Your task to perform on an android device: turn on showing notifications on the lock screen Image 0: 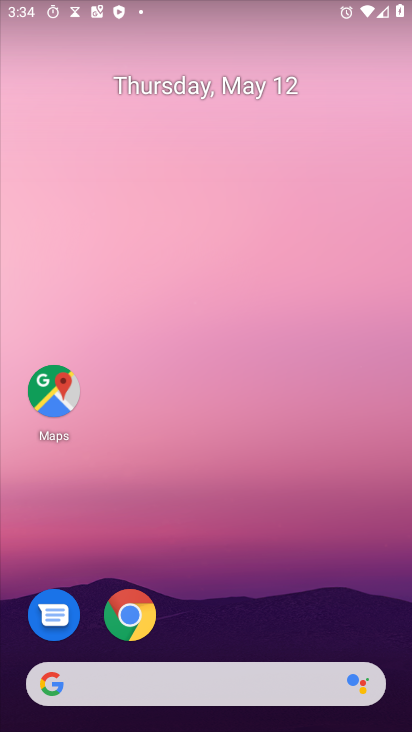
Step 0: press home button
Your task to perform on an android device: turn on showing notifications on the lock screen Image 1: 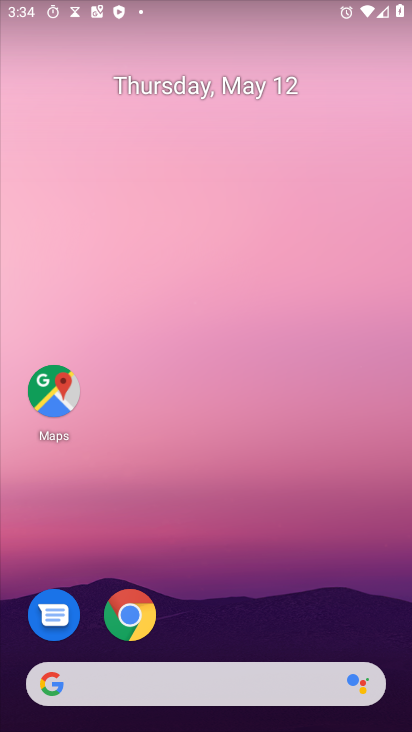
Step 1: drag from (72, 504) to (298, 56)
Your task to perform on an android device: turn on showing notifications on the lock screen Image 2: 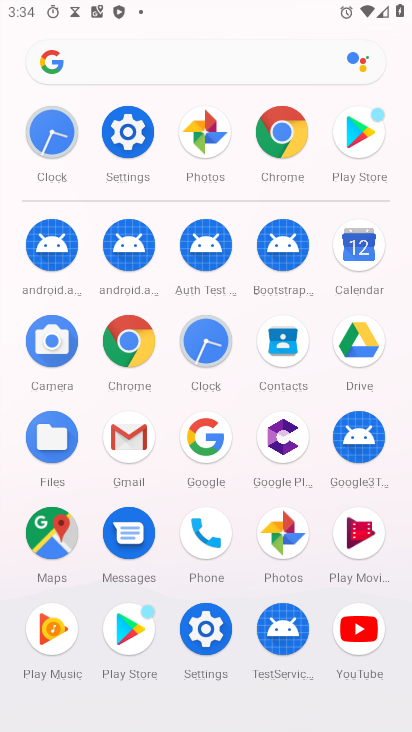
Step 2: click (136, 126)
Your task to perform on an android device: turn on showing notifications on the lock screen Image 3: 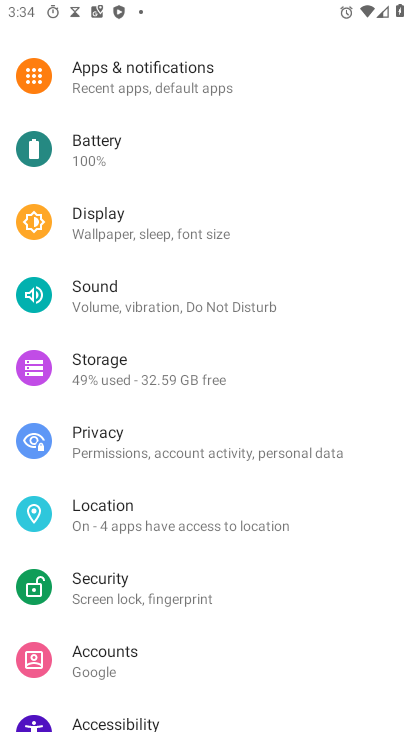
Step 3: drag from (120, 670) to (194, 412)
Your task to perform on an android device: turn on showing notifications on the lock screen Image 4: 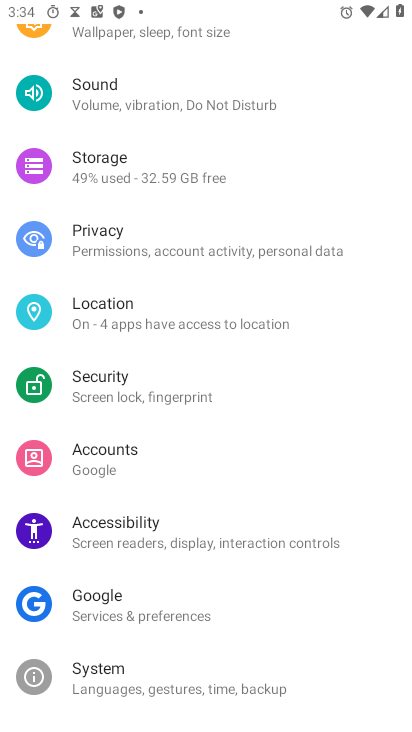
Step 4: drag from (176, 176) to (93, 631)
Your task to perform on an android device: turn on showing notifications on the lock screen Image 5: 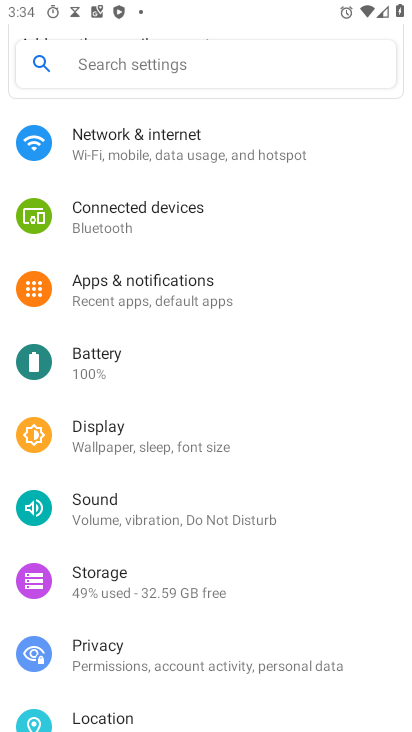
Step 5: click (76, 286)
Your task to perform on an android device: turn on showing notifications on the lock screen Image 6: 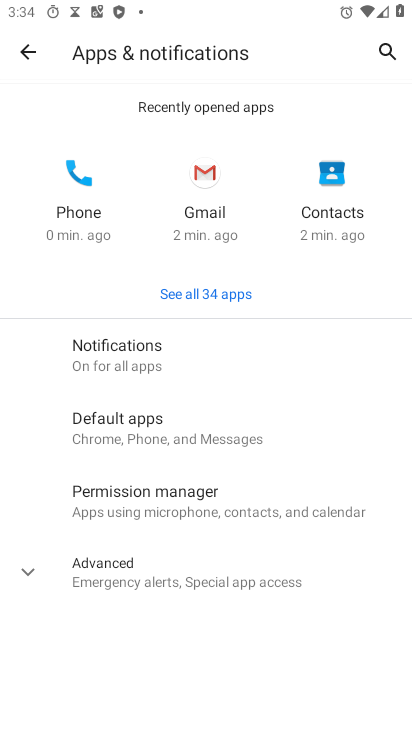
Step 6: click (229, 350)
Your task to perform on an android device: turn on showing notifications on the lock screen Image 7: 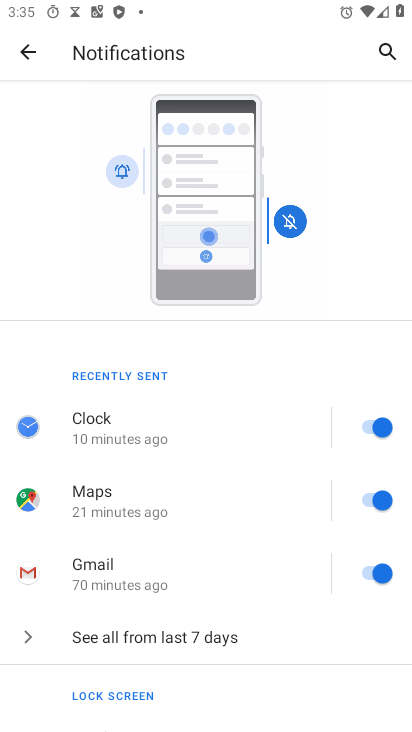
Step 7: drag from (99, 676) to (248, 299)
Your task to perform on an android device: turn on showing notifications on the lock screen Image 8: 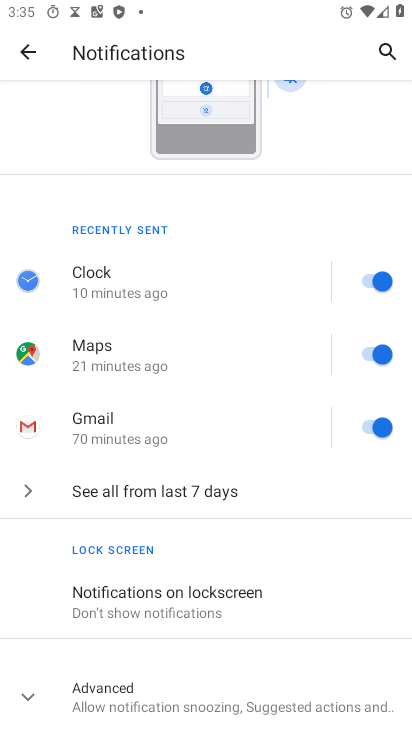
Step 8: click (92, 584)
Your task to perform on an android device: turn on showing notifications on the lock screen Image 9: 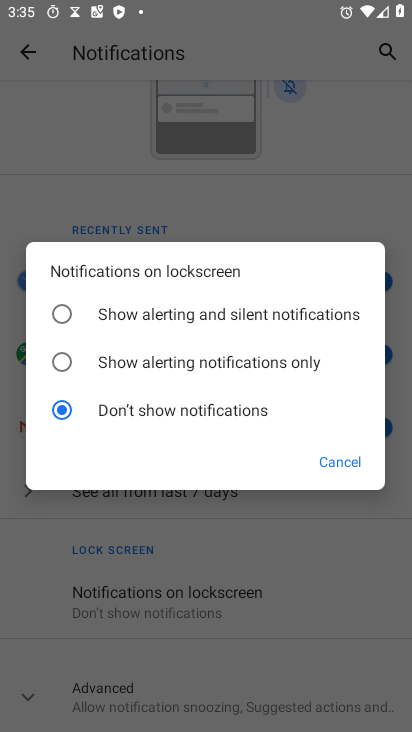
Step 9: click (64, 310)
Your task to perform on an android device: turn on showing notifications on the lock screen Image 10: 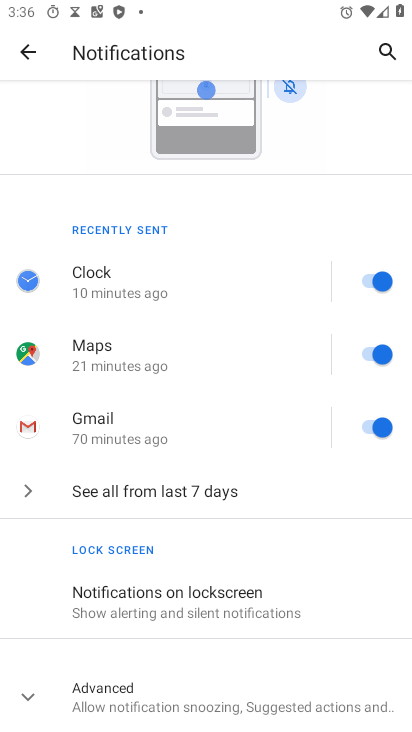
Step 10: task complete